Your task to perform on an android device: Open Yahoo.com Image 0: 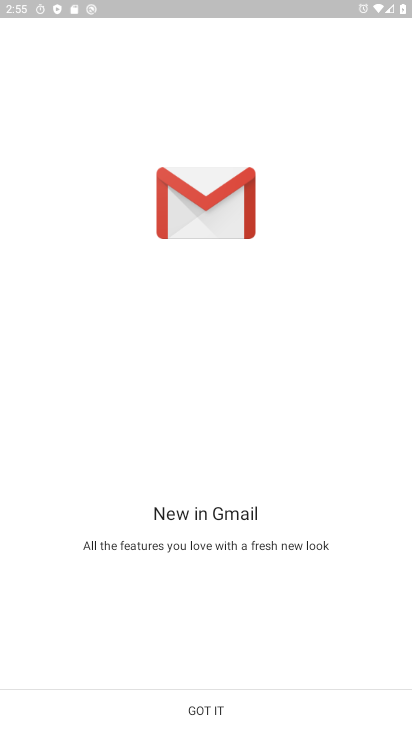
Step 0: press back button
Your task to perform on an android device: Open Yahoo.com Image 1: 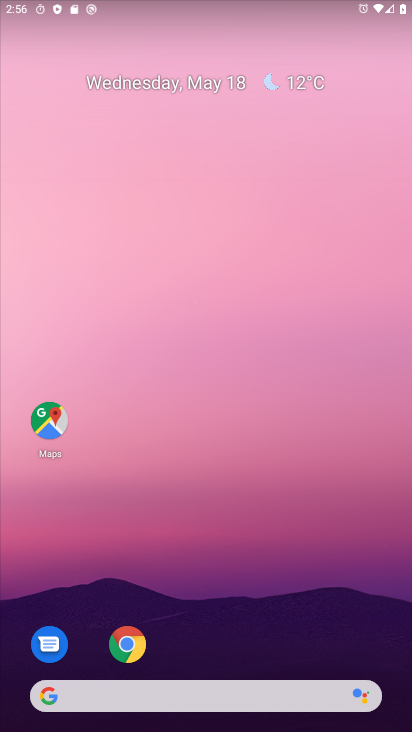
Step 1: click (130, 642)
Your task to perform on an android device: Open Yahoo.com Image 2: 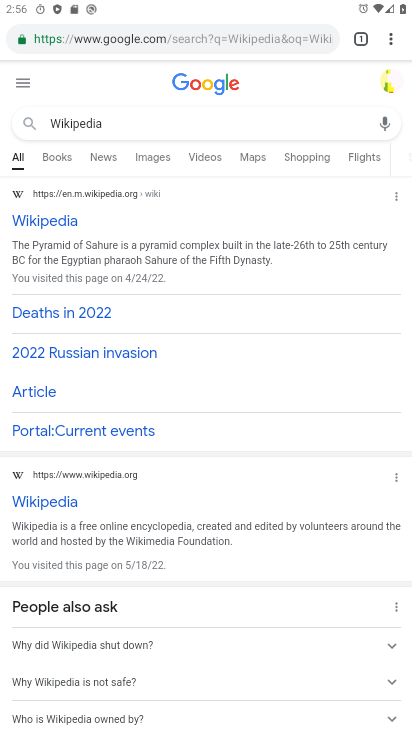
Step 2: click (320, 34)
Your task to perform on an android device: Open Yahoo.com Image 3: 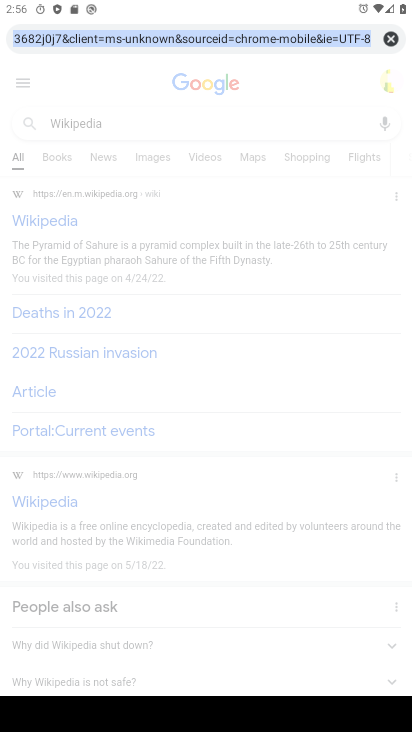
Step 3: click (390, 34)
Your task to perform on an android device: Open Yahoo.com Image 4: 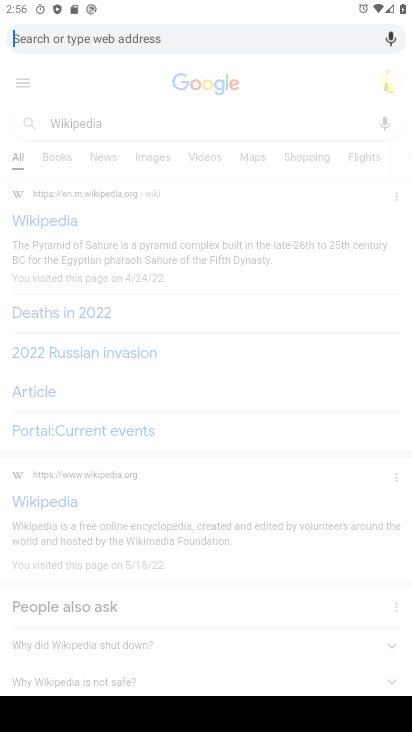
Step 4: type "Yahoo.com"
Your task to perform on an android device: Open Yahoo.com Image 5: 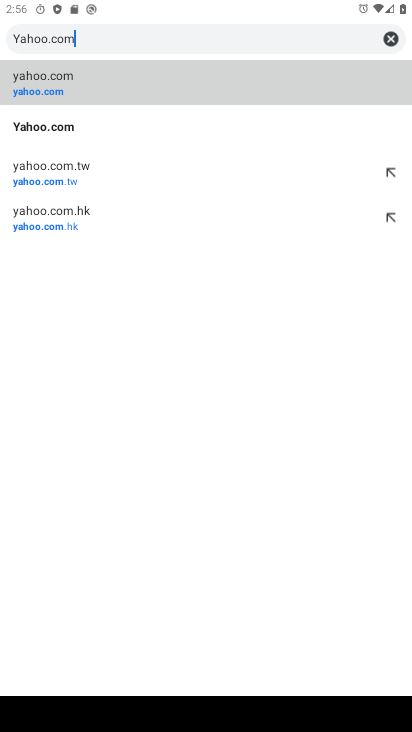
Step 5: click (33, 128)
Your task to perform on an android device: Open Yahoo.com Image 6: 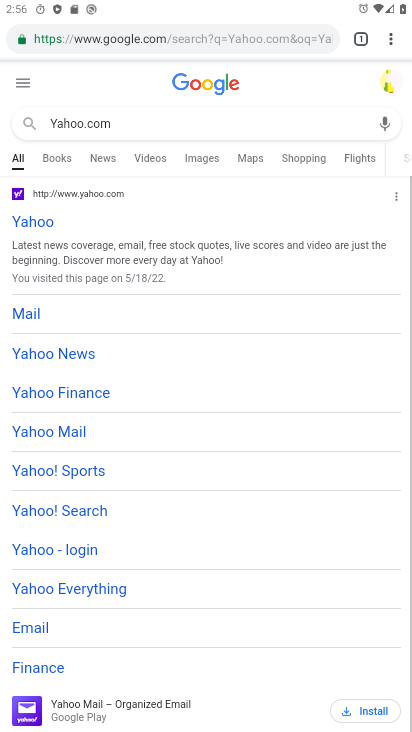
Step 6: task complete